Your task to perform on an android device: Search for dell xps on bestbuy, select the first entry, add it to the cart, then select checkout. Image 0: 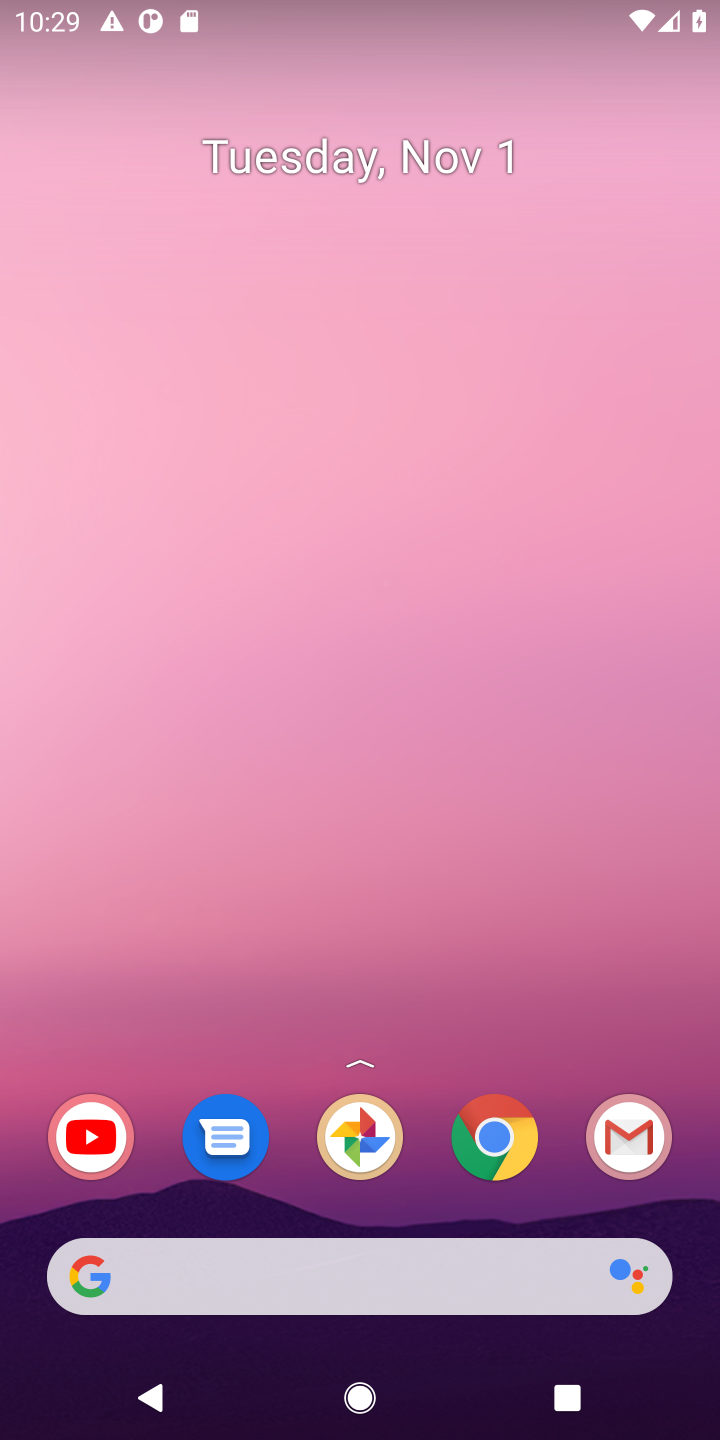
Step 0: drag from (344, 1189) to (319, 586)
Your task to perform on an android device: Search for dell xps on bestbuy, select the first entry, add it to the cart, then select checkout. Image 1: 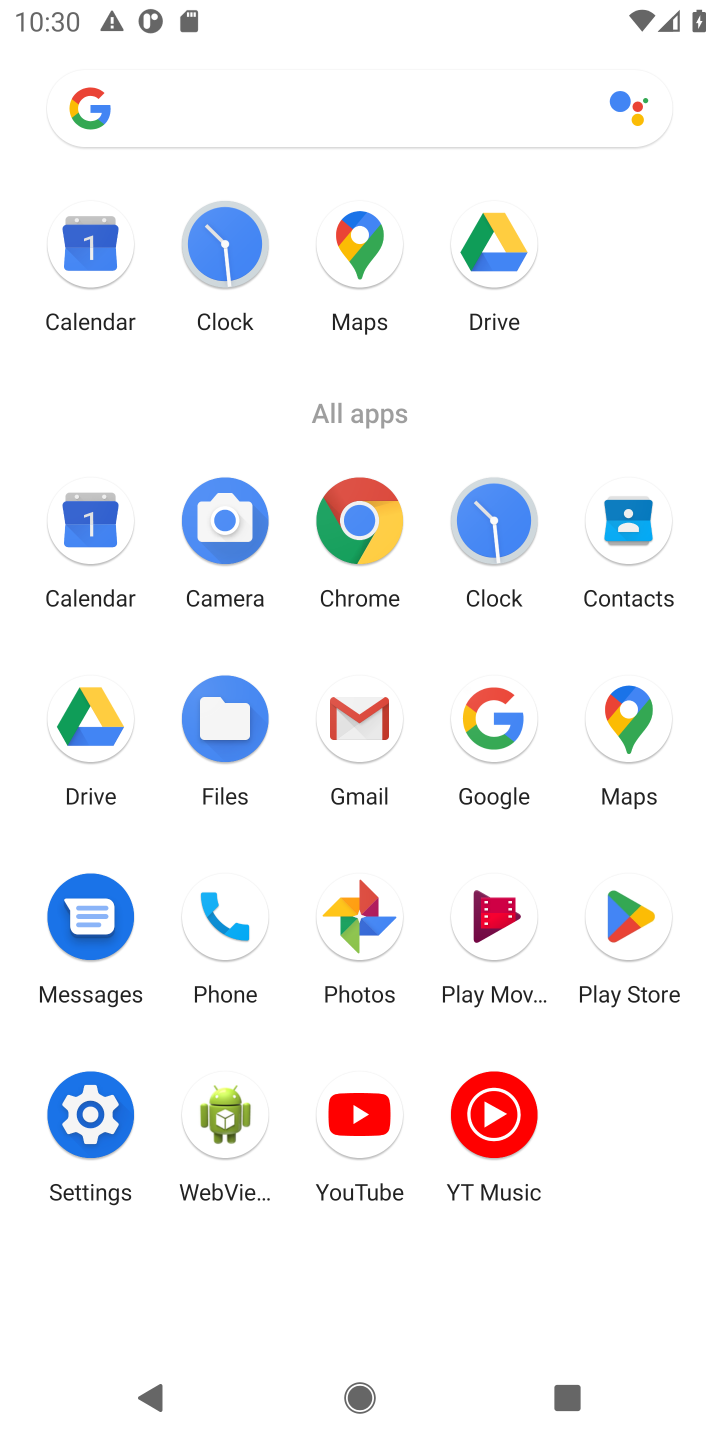
Step 1: click (493, 731)
Your task to perform on an android device: Search for dell xps on bestbuy, select the first entry, add it to the cart, then select checkout. Image 2: 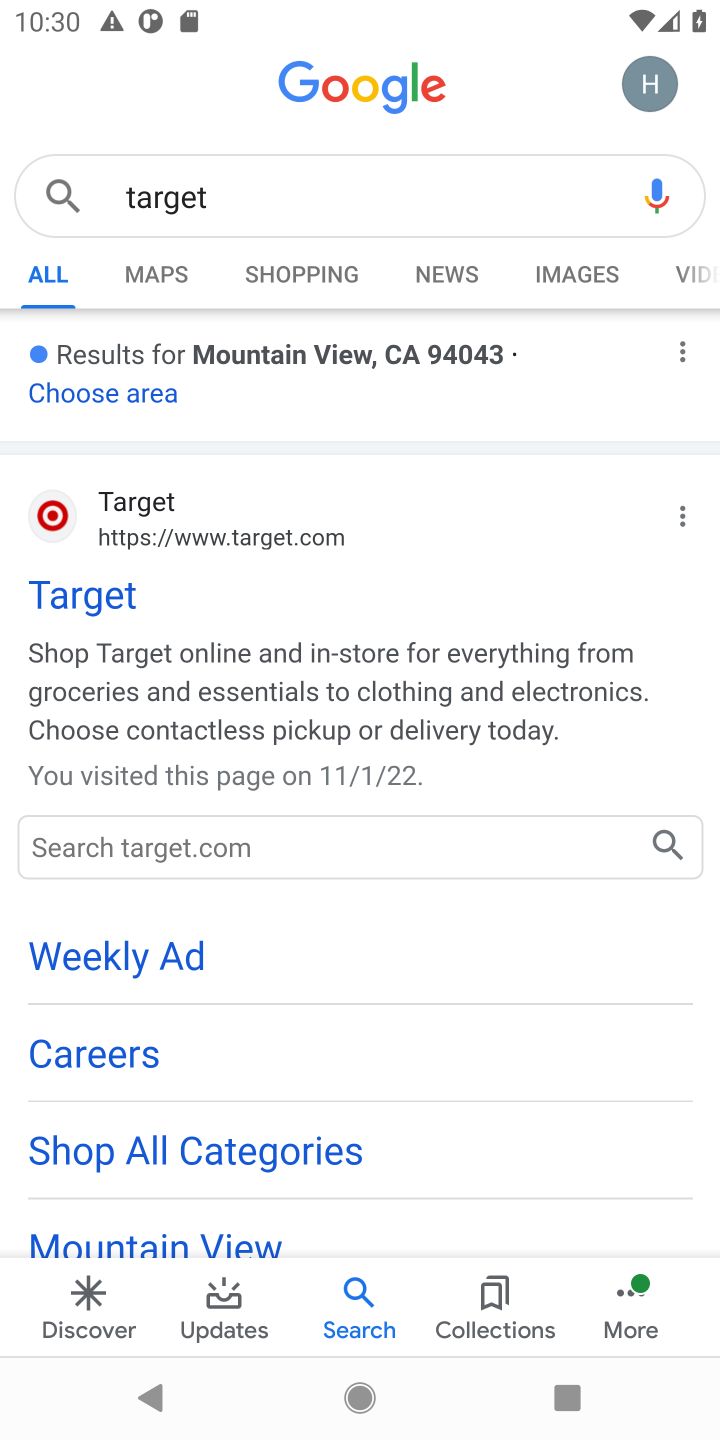
Step 2: click (460, 190)
Your task to perform on an android device: Search for dell xps on bestbuy, select the first entry, add it to the cart, then select checkout. Image 3: 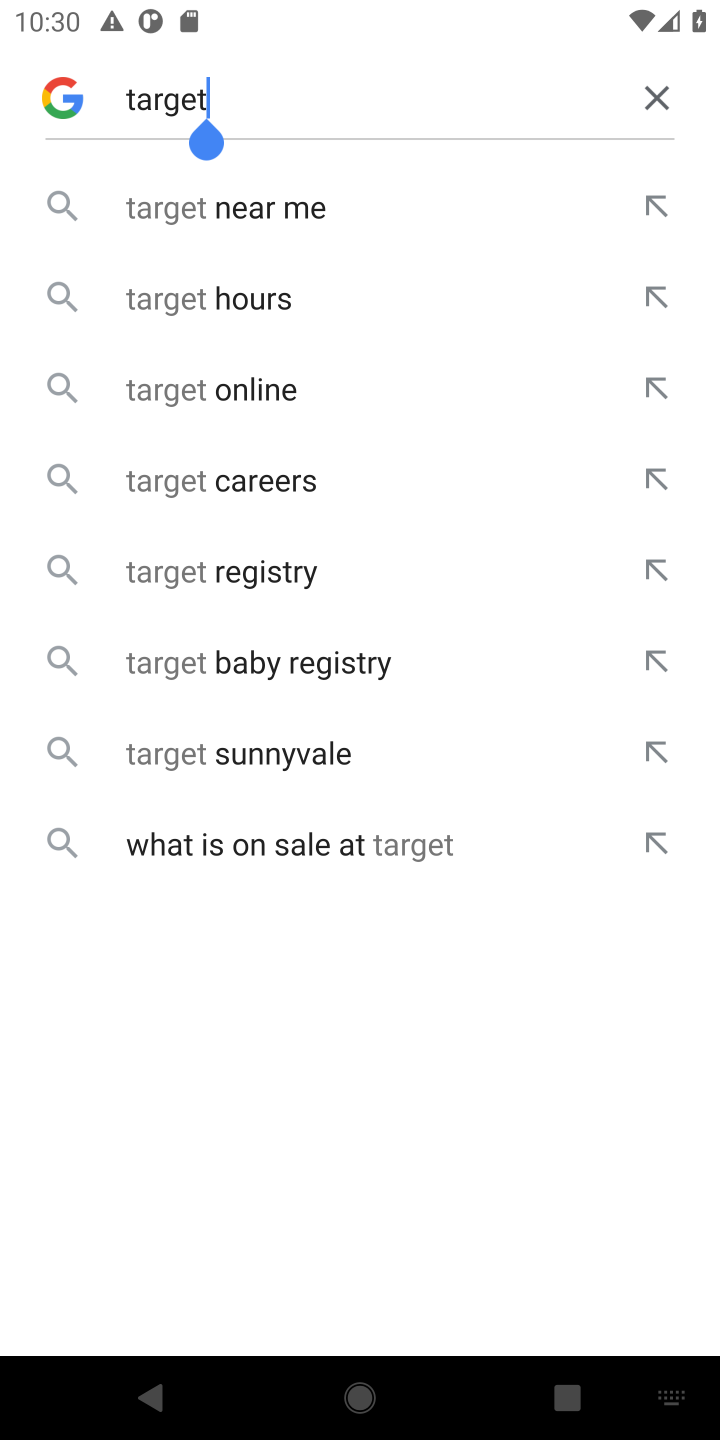
Step 3: click (653, 97)
Your task to perform on an android device: Search for dell xps on bestbuy, select the first entry, add it to the cart, then select checkout. Image 4: 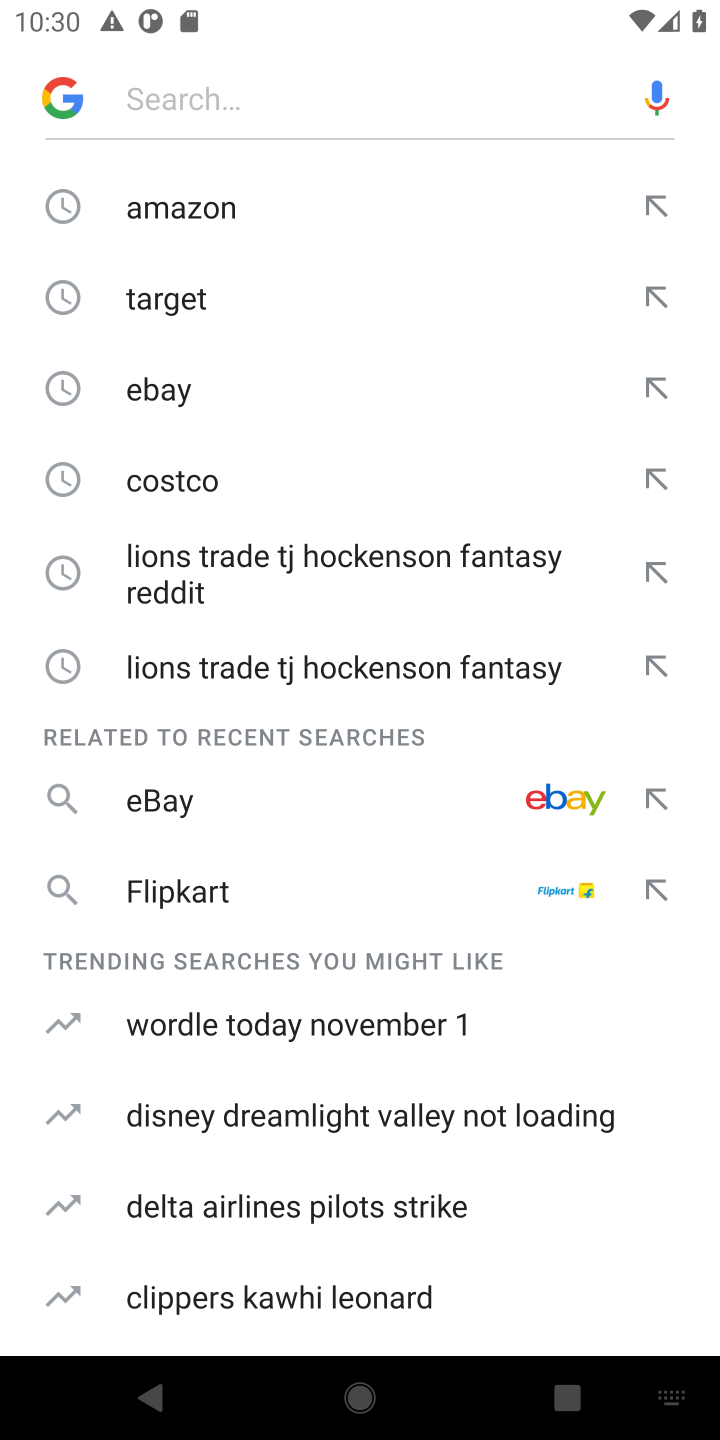
Step 4: type "bestbuy"
Your task to perform on an android device: Search for dell xps on bestbuy, select the first entry, add it to the cart, then select checkout. Image 5: 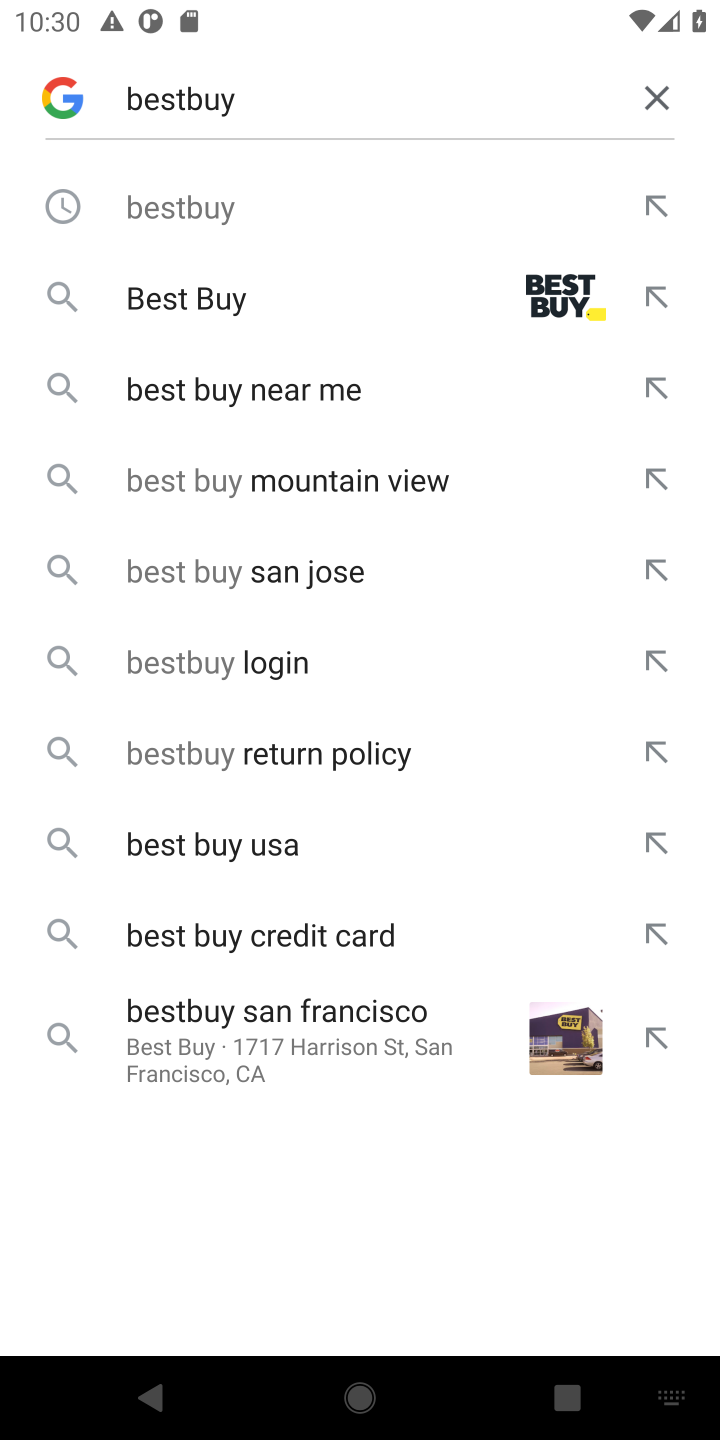
Step 5: click (305, 312)
Your task to perform on an android device: Search for dell xps on bestbuy, select the first entry, add it to the cart, then select checkout. Image 6: 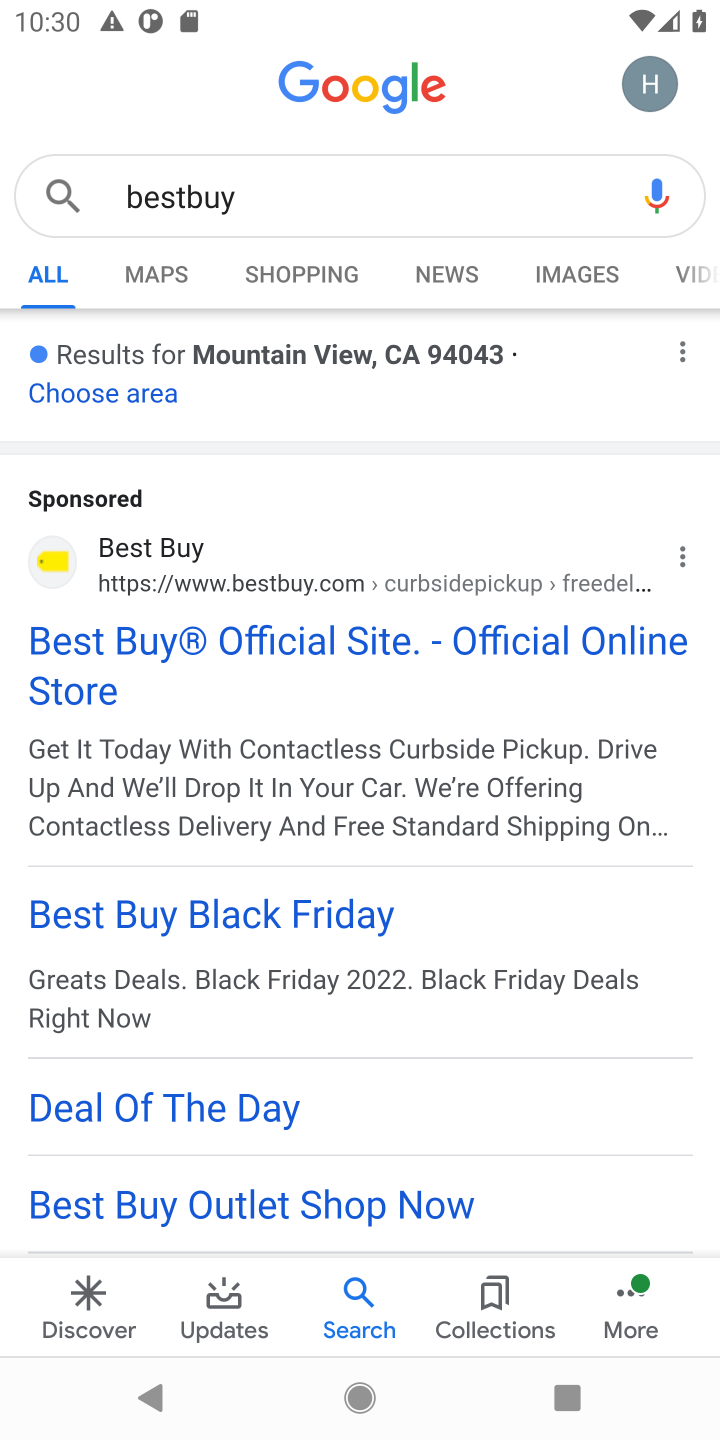
Step 6: click (143, 540)
Your task to perform on an android device: Search for dell xps on bestbuy, select the first entry, add it to the cart, then select checkout. Image 7: 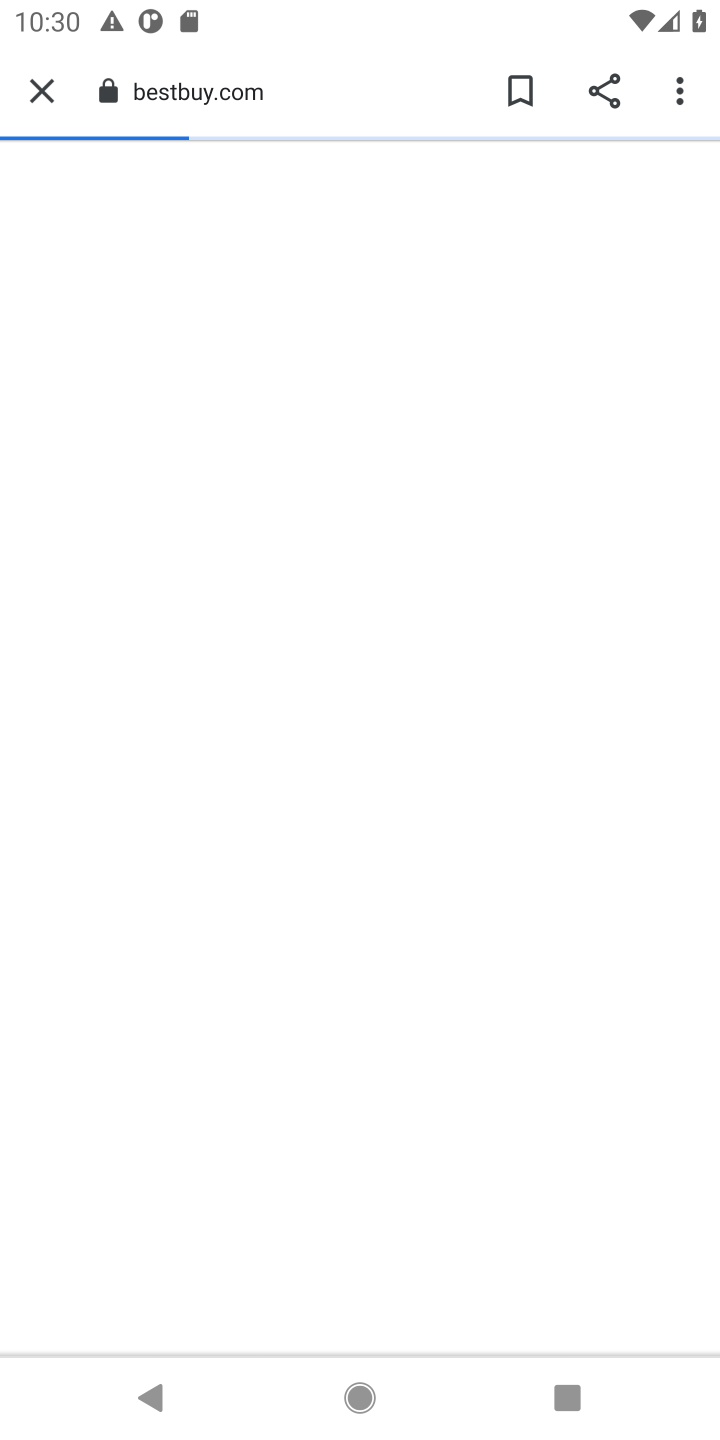
Step 7: click (186, 559)
Your task to perform on an android device: Search for dell xps on bestbuy, select the first entry, add it to the cart, then select checkout. Image 8: 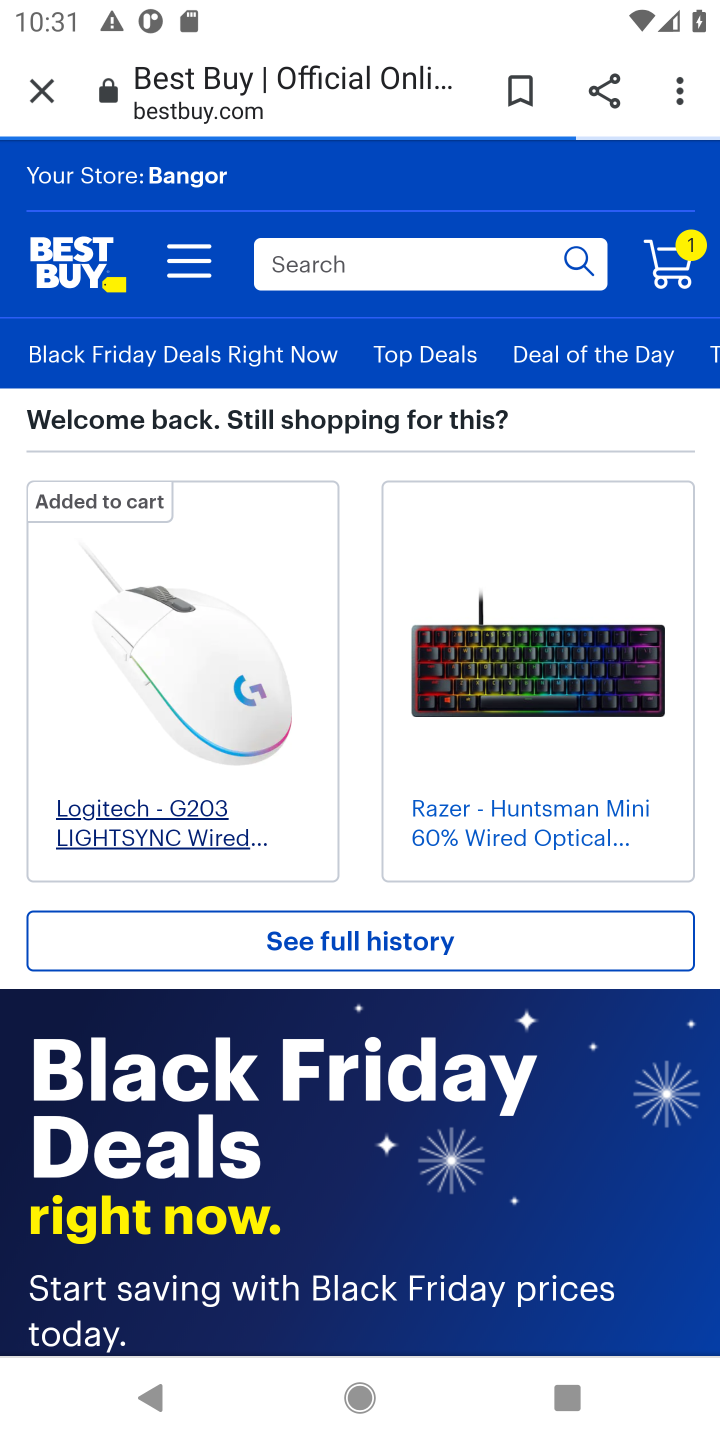
Step 8: click (385, 256)
Your task to perform on an android device: Search for dell xps on bestbuy, select the first entry, add it to the cart, then select checkout. Image 9: 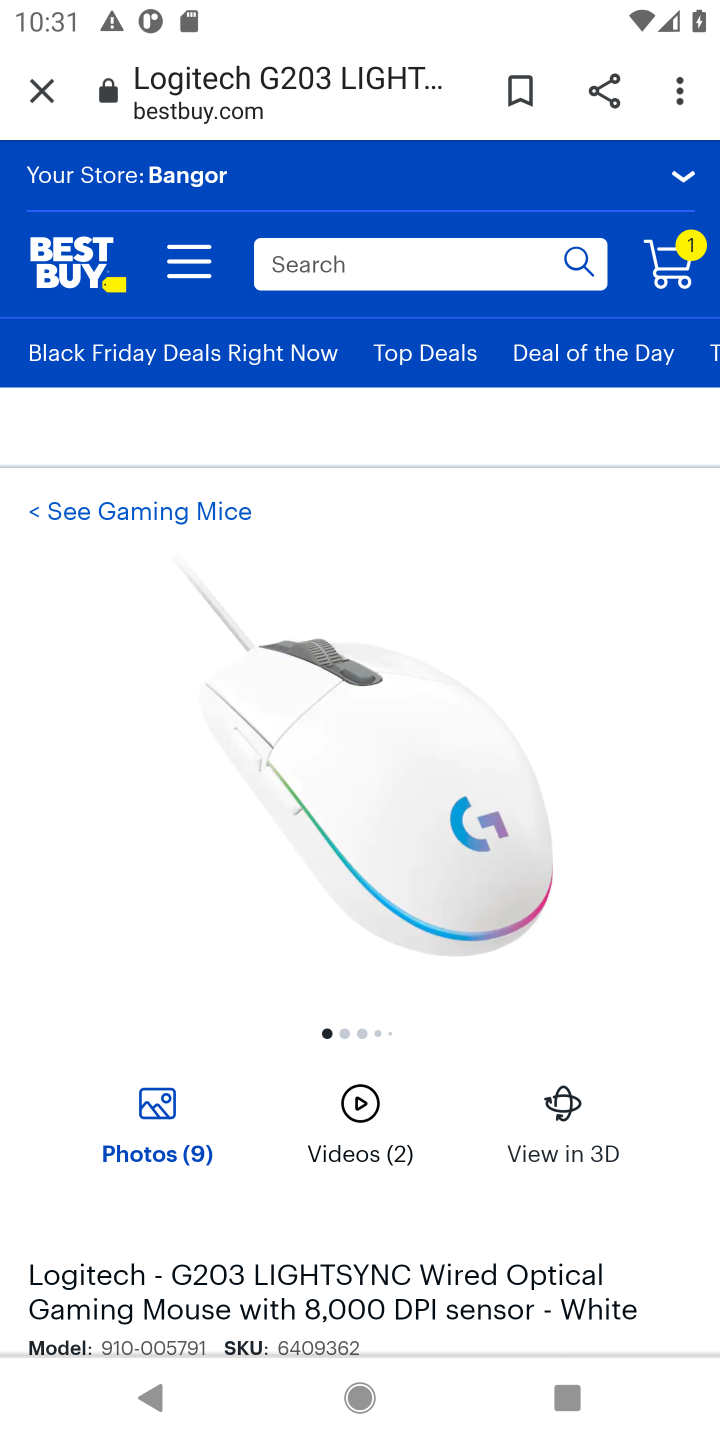
Step 9: click (323, 268)
Your task to perform on an android device: Search for dell xps on bestbuy, select the first entry, add it to the cart, then select checkout. Image 10: 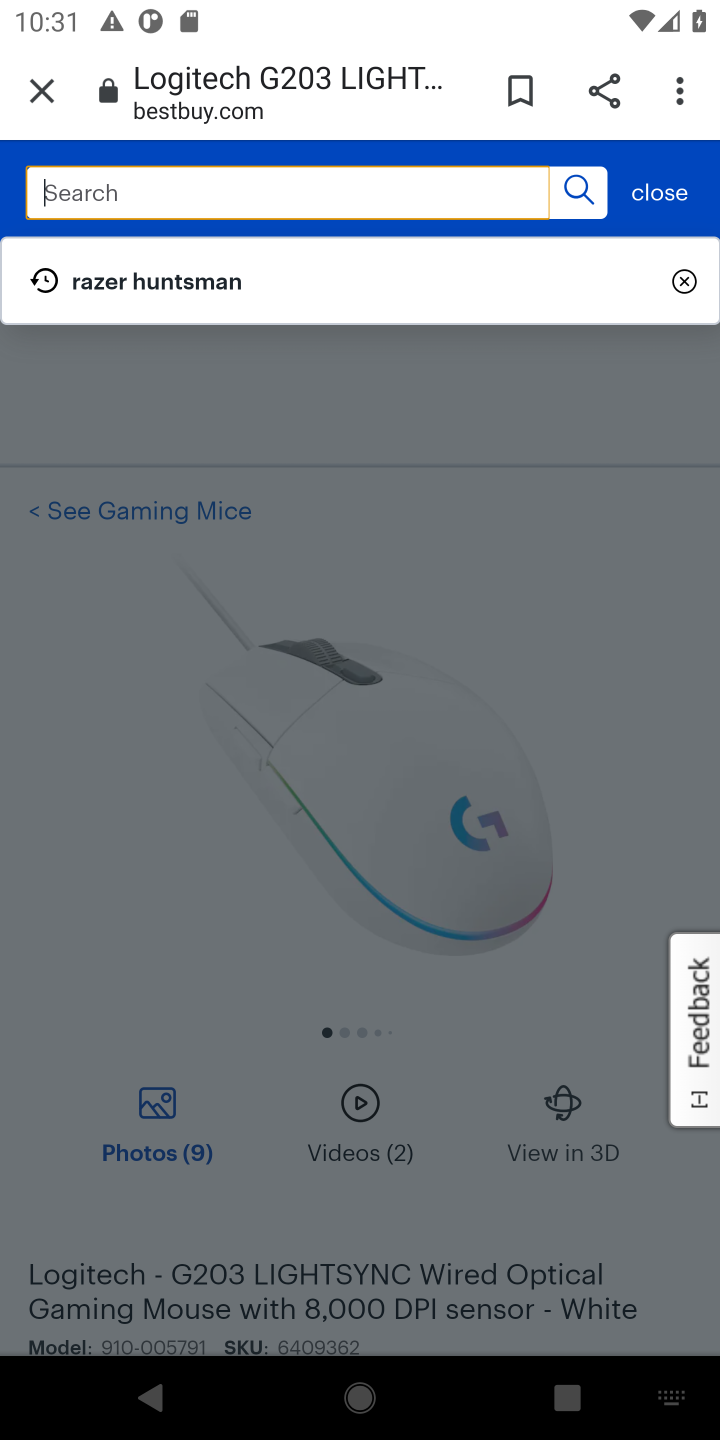
Step 10: type "dell xps"
Your task to perform on an android device: Search for dell xps on bestbuy, select the first entry, add it to the cart, then select checkout. Image 11: 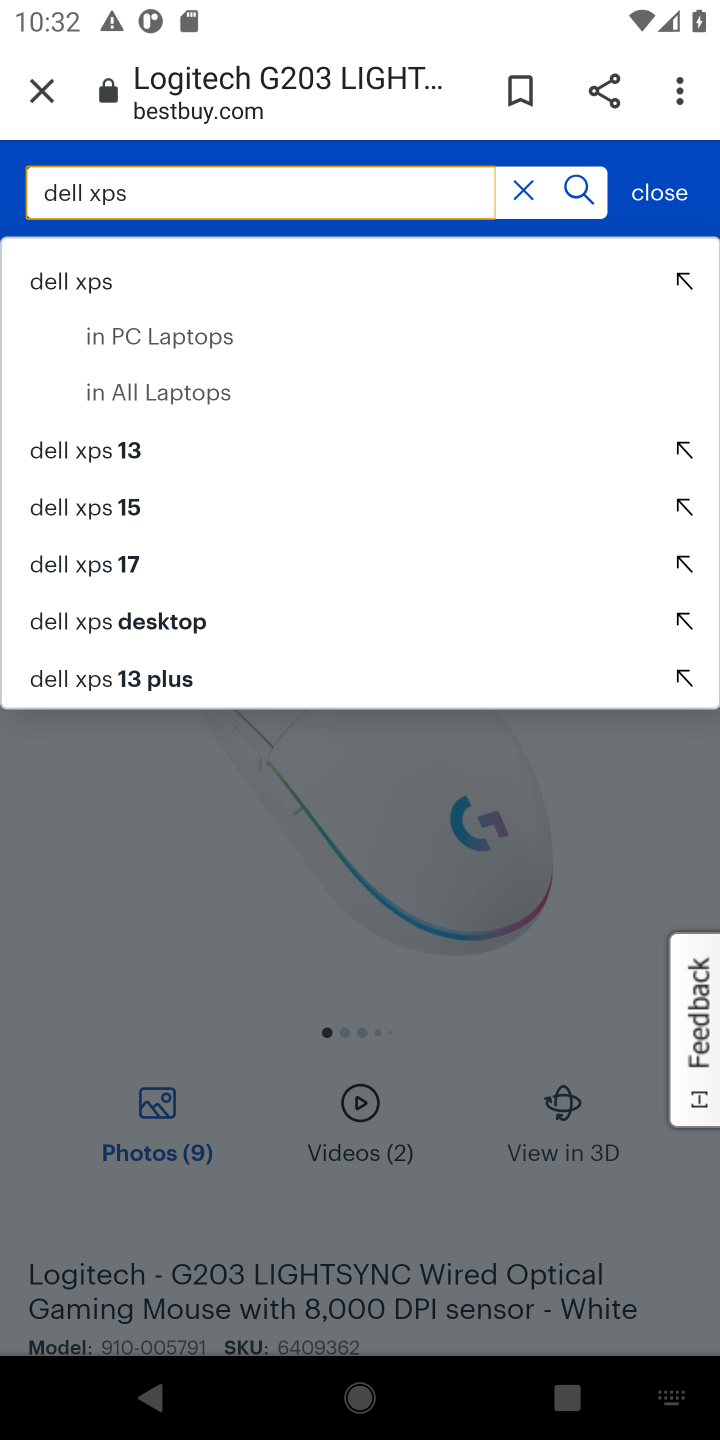
Step 11: click (183, 328)
Your task to perform on an android device: Search for dell xps on bestbuy, select the first entry, add it to the cart, then select checkout. Image 12: 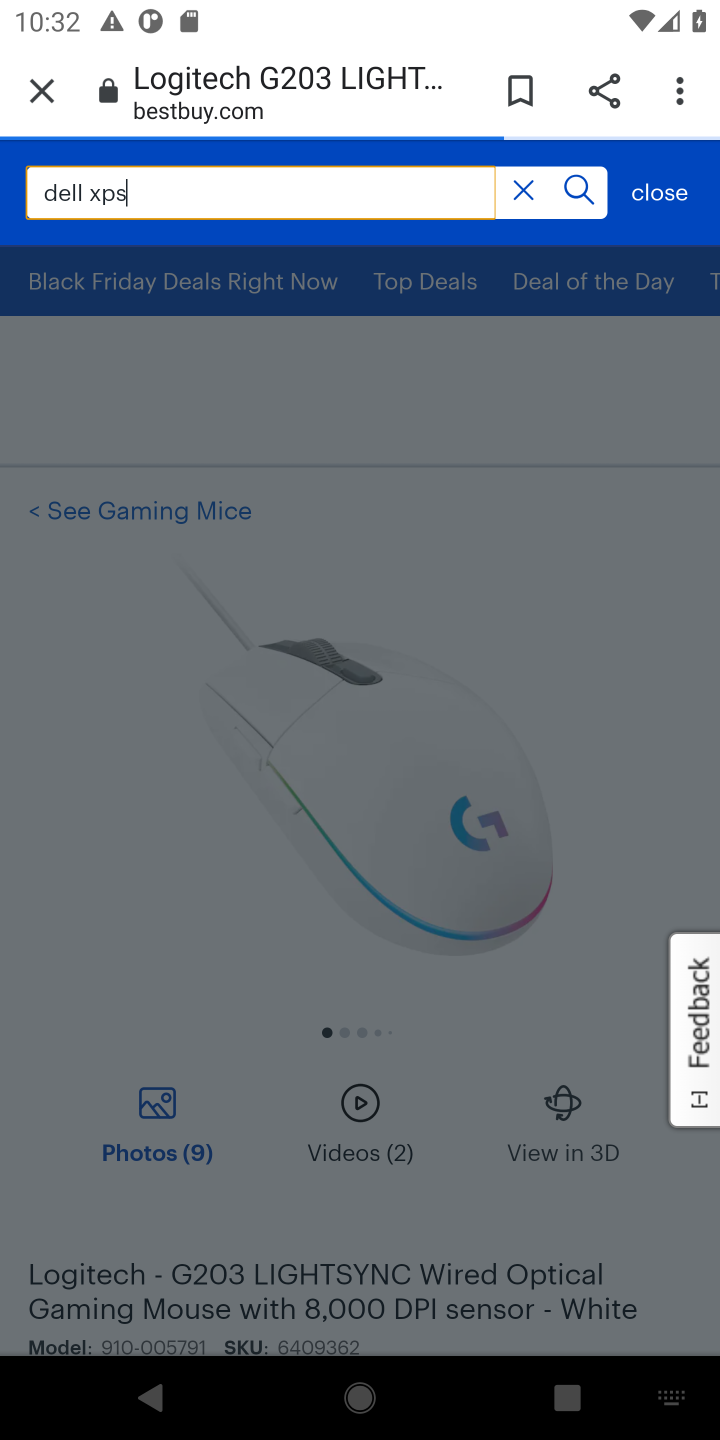
Step 12: click (641, 195)
Your task to perform on an android device: Search for dell xps on bestbuy, select the first entry, add it to the cart, then select checkout. Image 13: 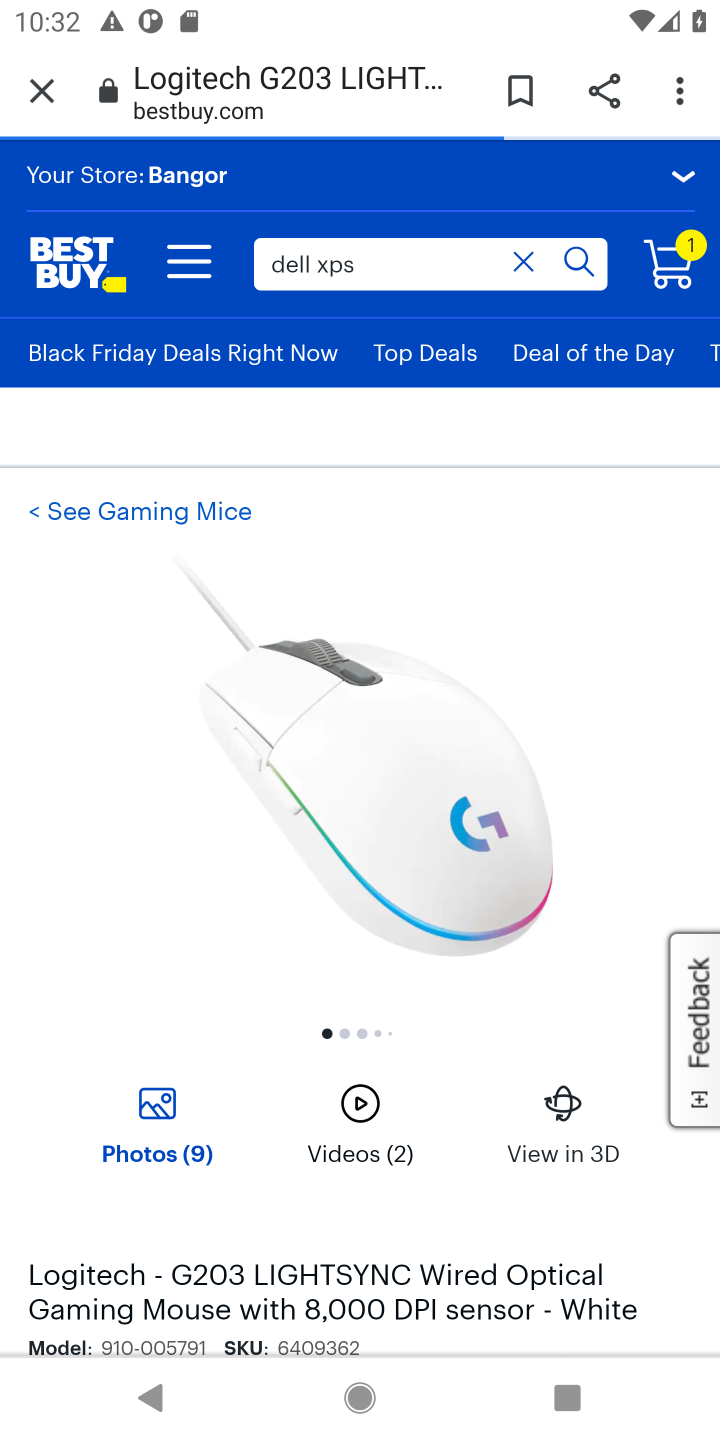
Step 13: drag from (449, 1115) to (452, 643)
Your task to perform on an android device: Search for dell xps on bestbuy, select the first entry, add it to the cart, then select checkout. Image 14: 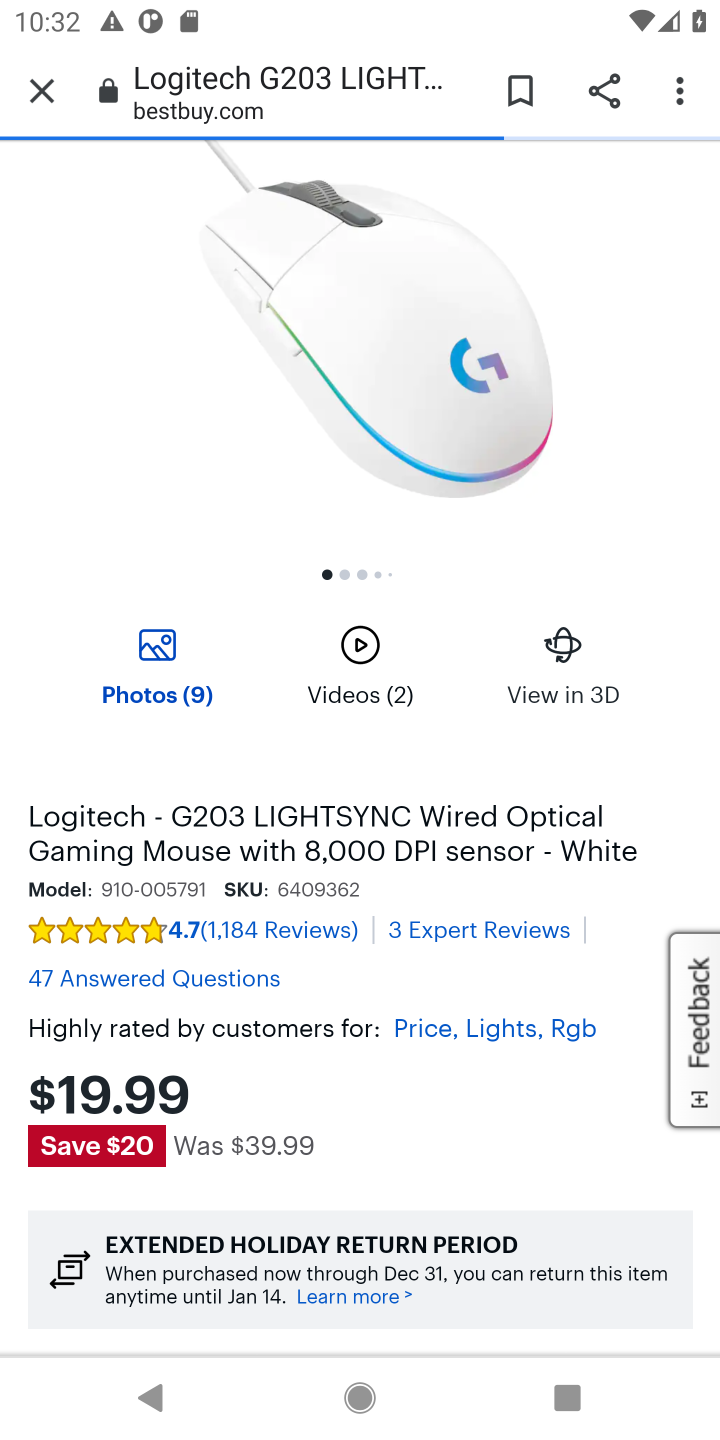
Step 14: drag from (489, 598) to (524, 1204)
Your task to perform on an android device: Search for dell xps on bestbuy, select the first entry, add it to the cart, then select checkout. Image 15: 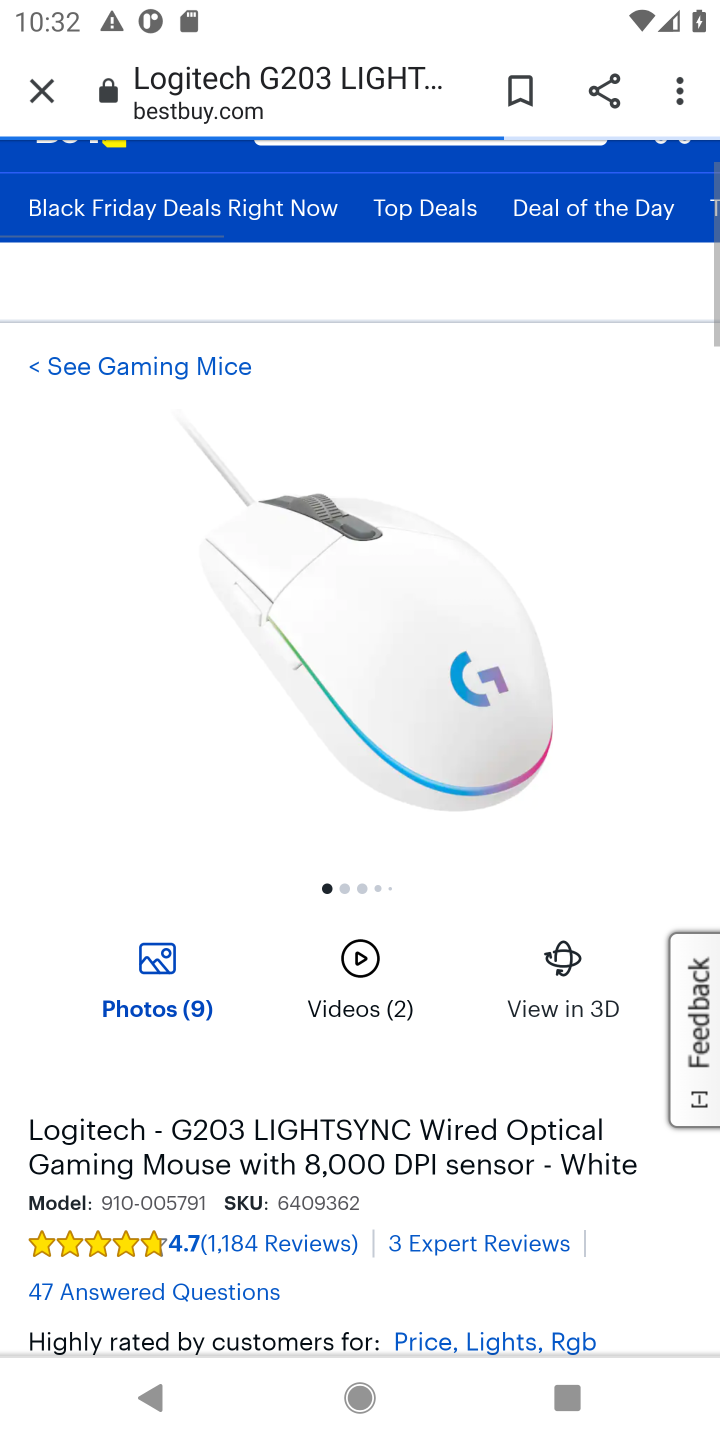
Step 15: drag from (509, 967) to (509, 1328)
Your task to perform on an android device: Search for dell xps on bestbuy, select the first entry, add it to the cart, then select checkout. Image 16: 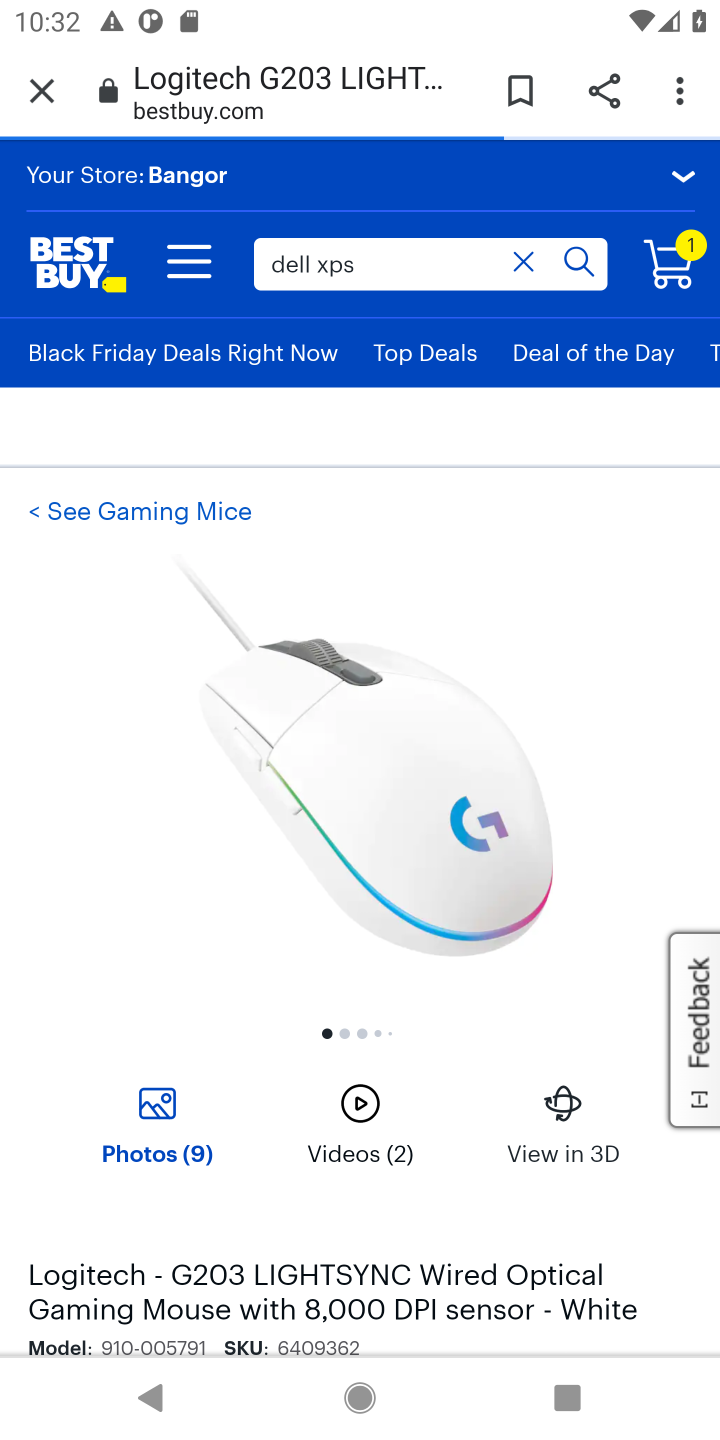
Step 16: click (470, 244)
Your task to perform on an android device: Search for dell xps on bestbuy, select the first entry, add it to the cart, then select checkout. Image 17: 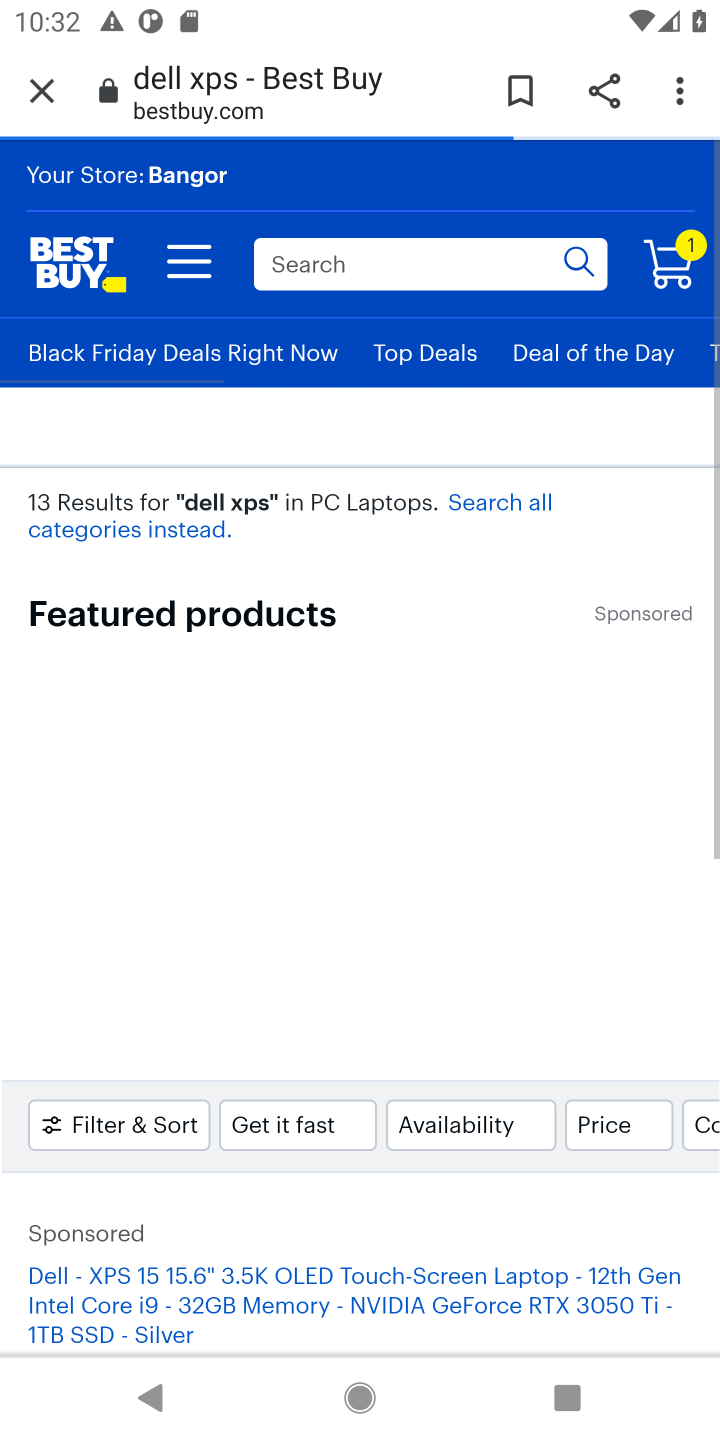
Step 17: click (527, 185)
Your task to perform on an android device: Search for dell xps on bestbuy, select the first entry, add it to the cart, then select checkout. Image 18: 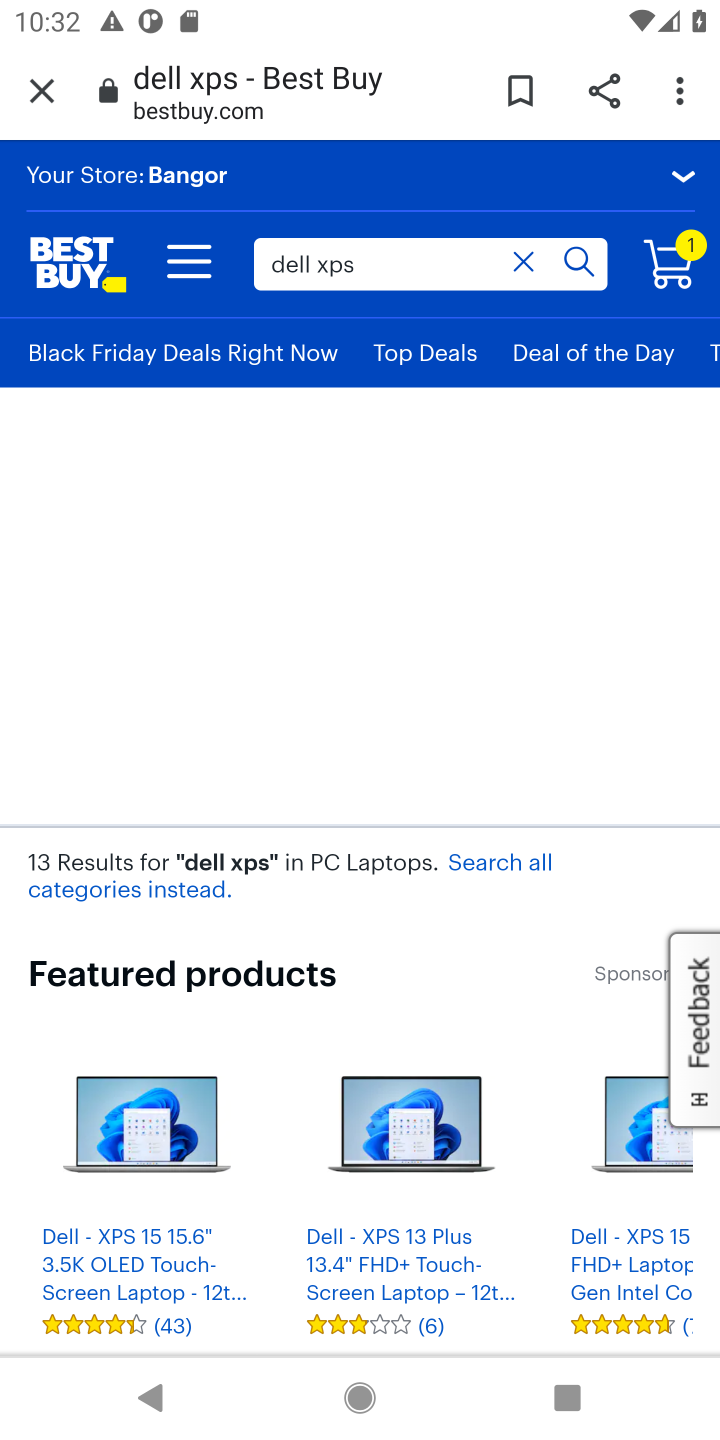
Step 18: click (162, 1251)
Your task to perform on an android device: Search for dell xps on bestbuy, select the first entry, add it to the cart, then select checkout. Image 19: 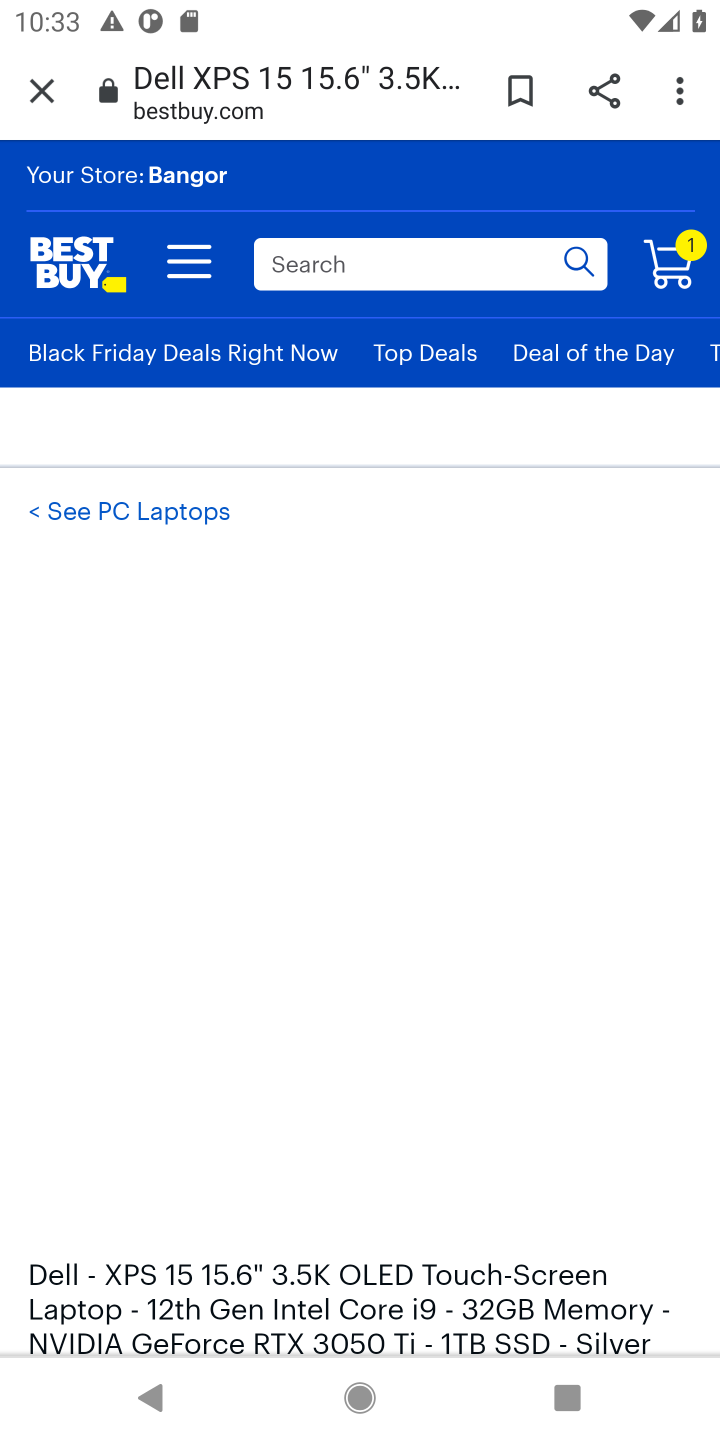
Step 19: drag from (354, 997) to (354, 444)
Your task to perform on an android device: Search for dell xps on bestbuy, select the first entry, add it to the cart, then select checkout. Image 20: 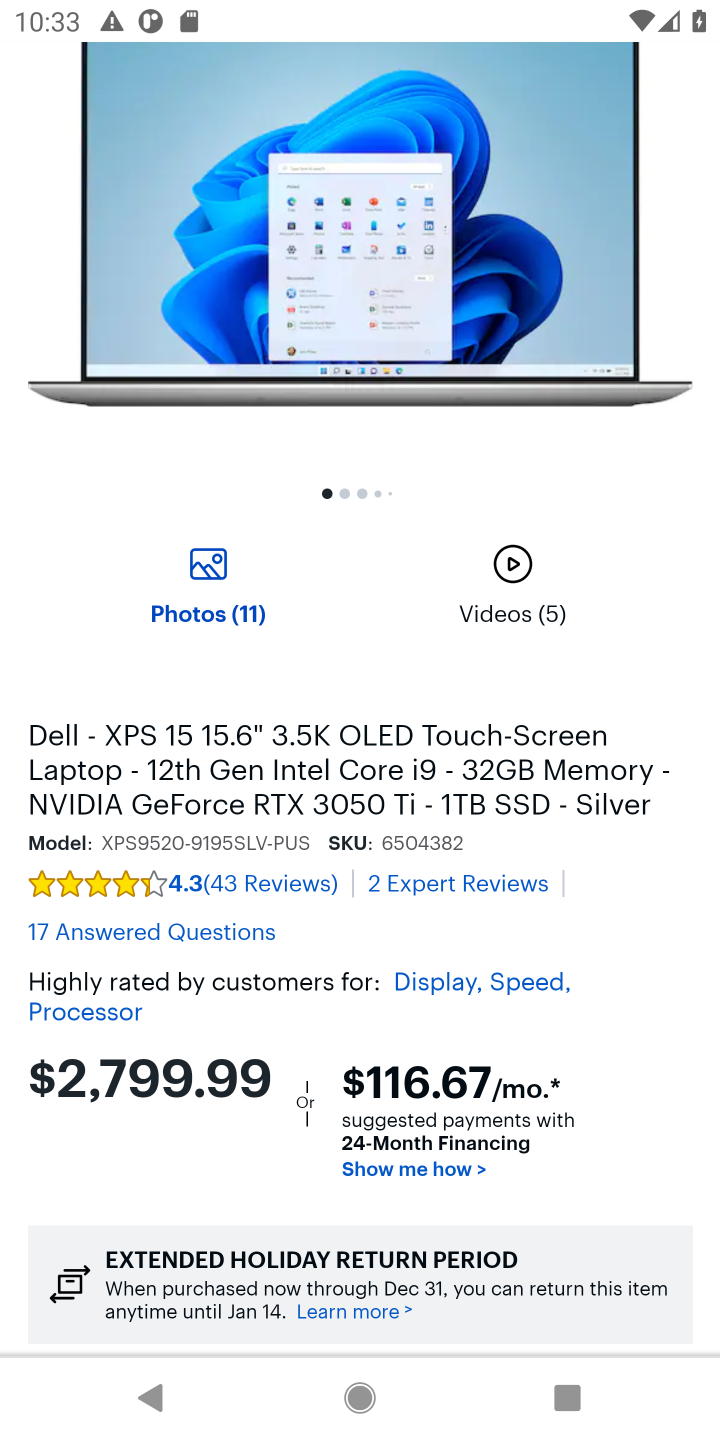
Step 20: drag from (326, 1062) to (390, 607)
Your task to perform on an android device: Search for dell xps on bestbuy, select the first entry, add it to the cart, then select checkout. Image 21: 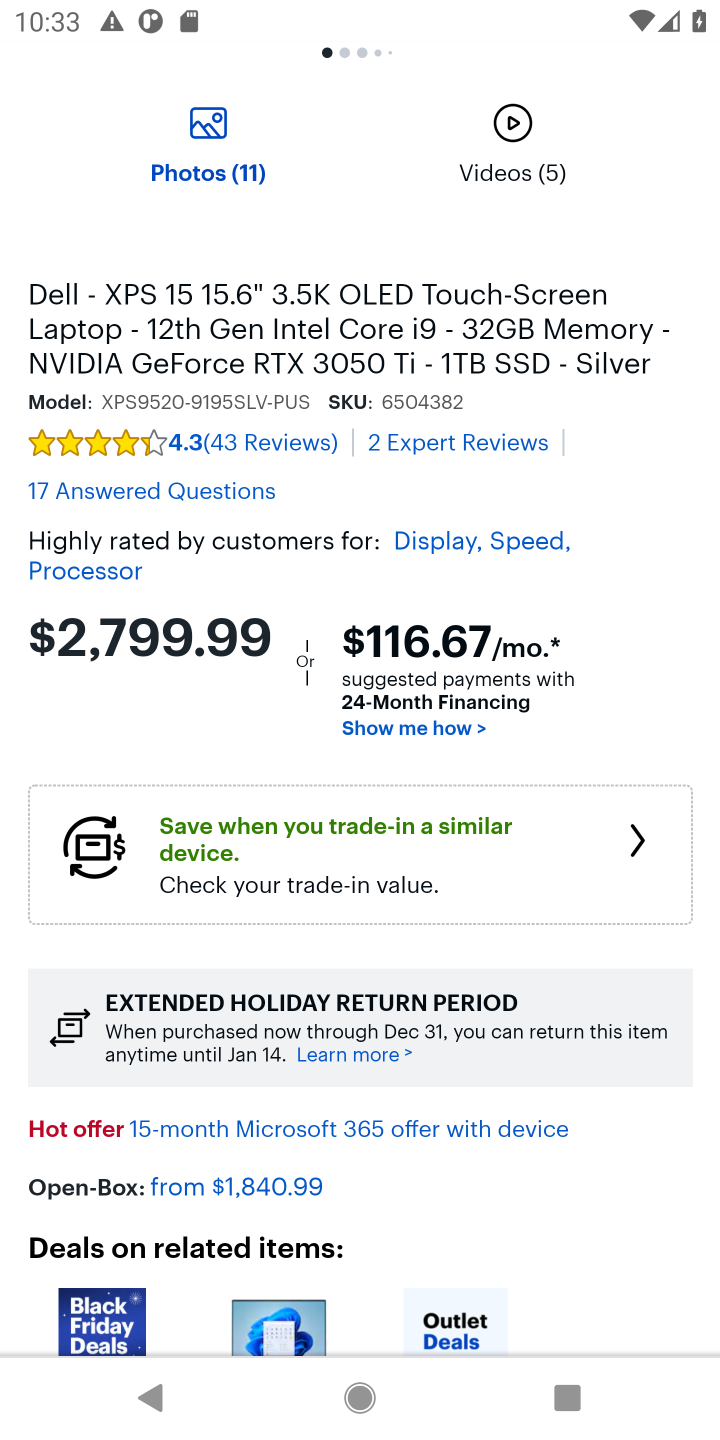
Step 21: click (533, 798)
Your task to perform on an android device: Search for dell xps on bestbuy, select the first entry, add it to the cart, then select checkout. Image 22: 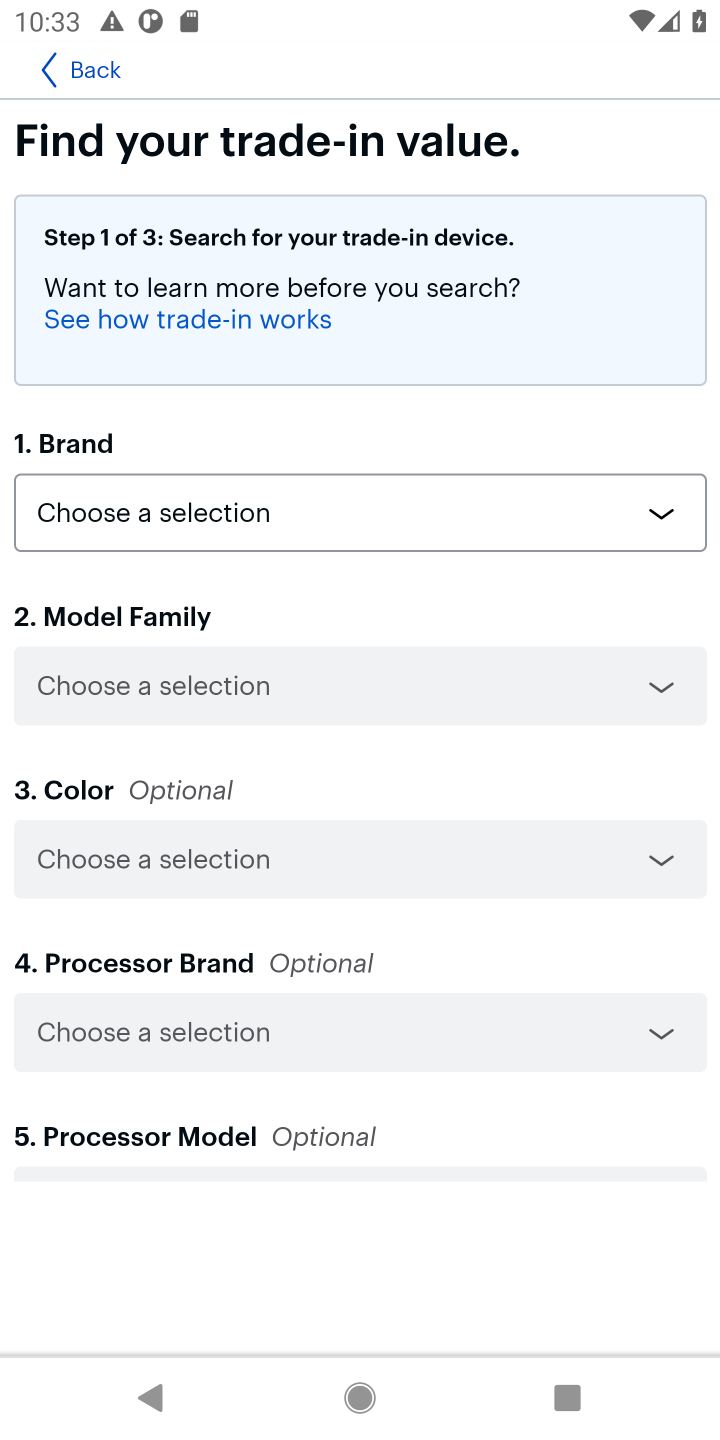
Step 22: press back button
Your task to perform on an android device: Search for dell xps on bestbuy, select the first entry, add it to the cart, then select checkout. Image 23: 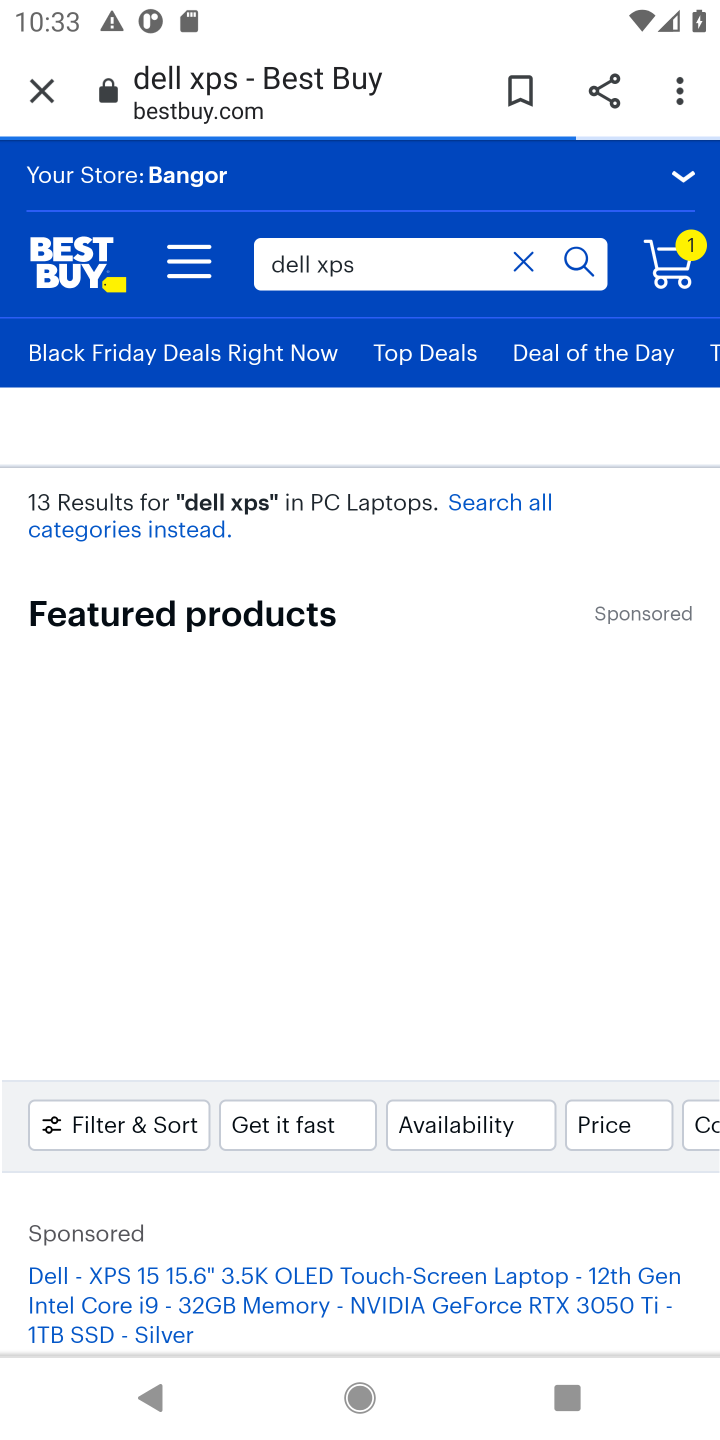
Step 23: drag from (446, 1118) to (446, 639)
Your task to perform on an android device: Search for dell xps on bestbuy, select the first entry, add it to the cart, then select checkout. Image 24: 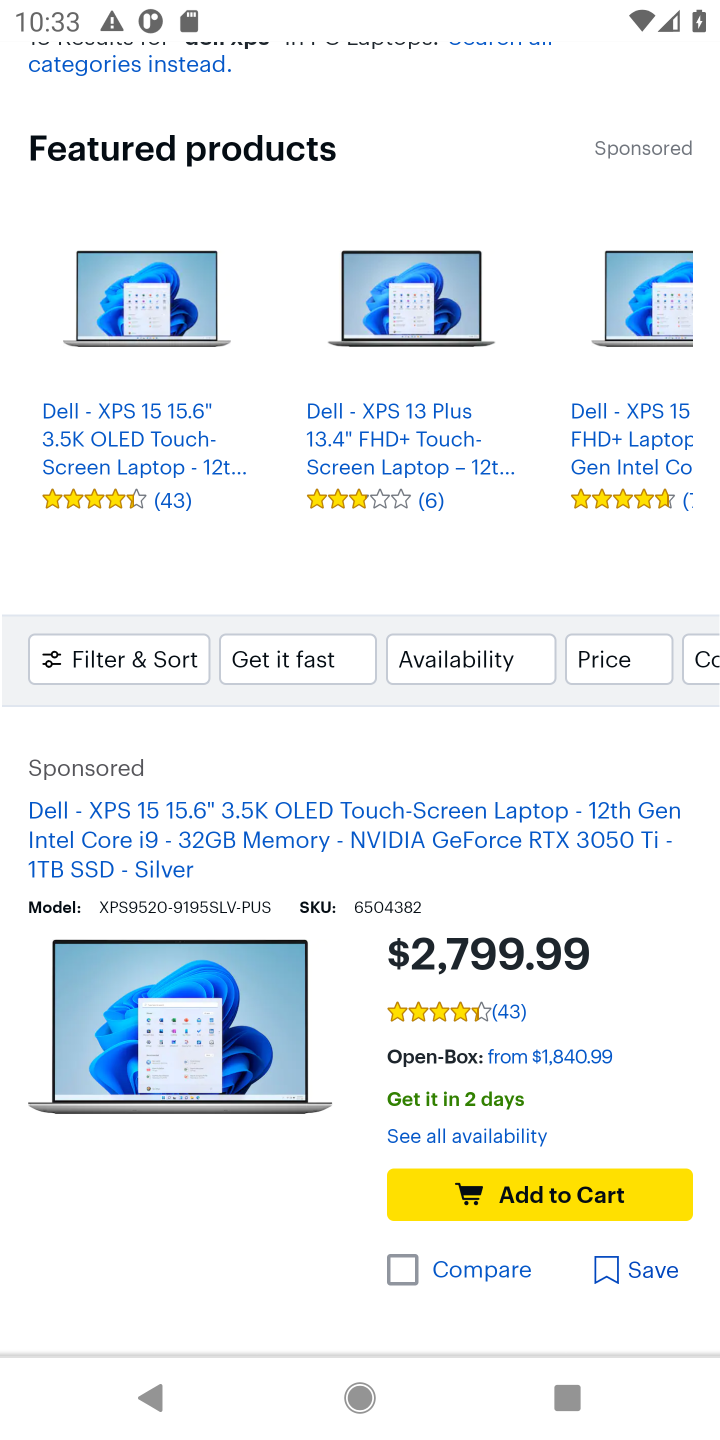
Step 24: click (545, 1191)
Your task to perform on an android device: Search for dell xps on bestbuy, select the first entry, add it to the cart, then select checkout. Image 25: 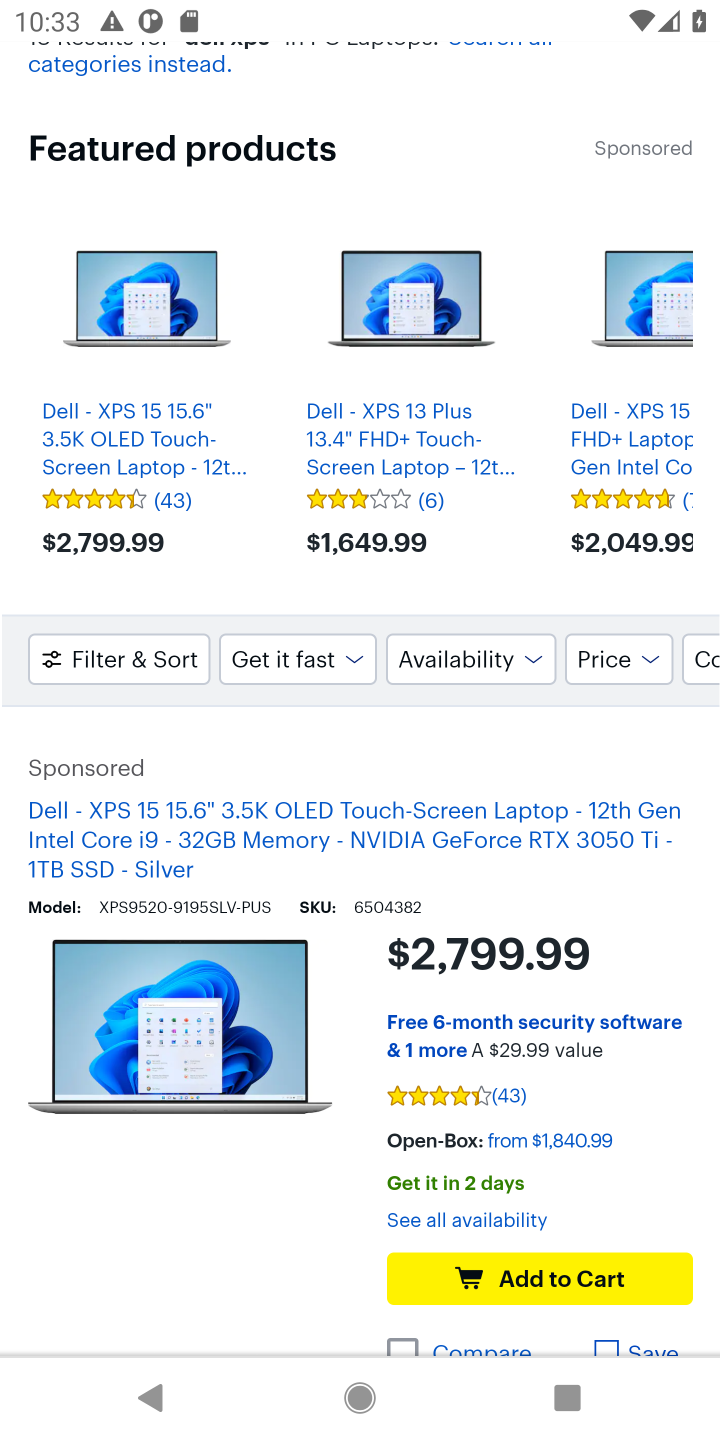
Step 25: click (523, 1268)
Your task to perform on an android device: Search for dell xps on bestbuy, select the first entry, add it to the cart, then select checkout. Image 26: 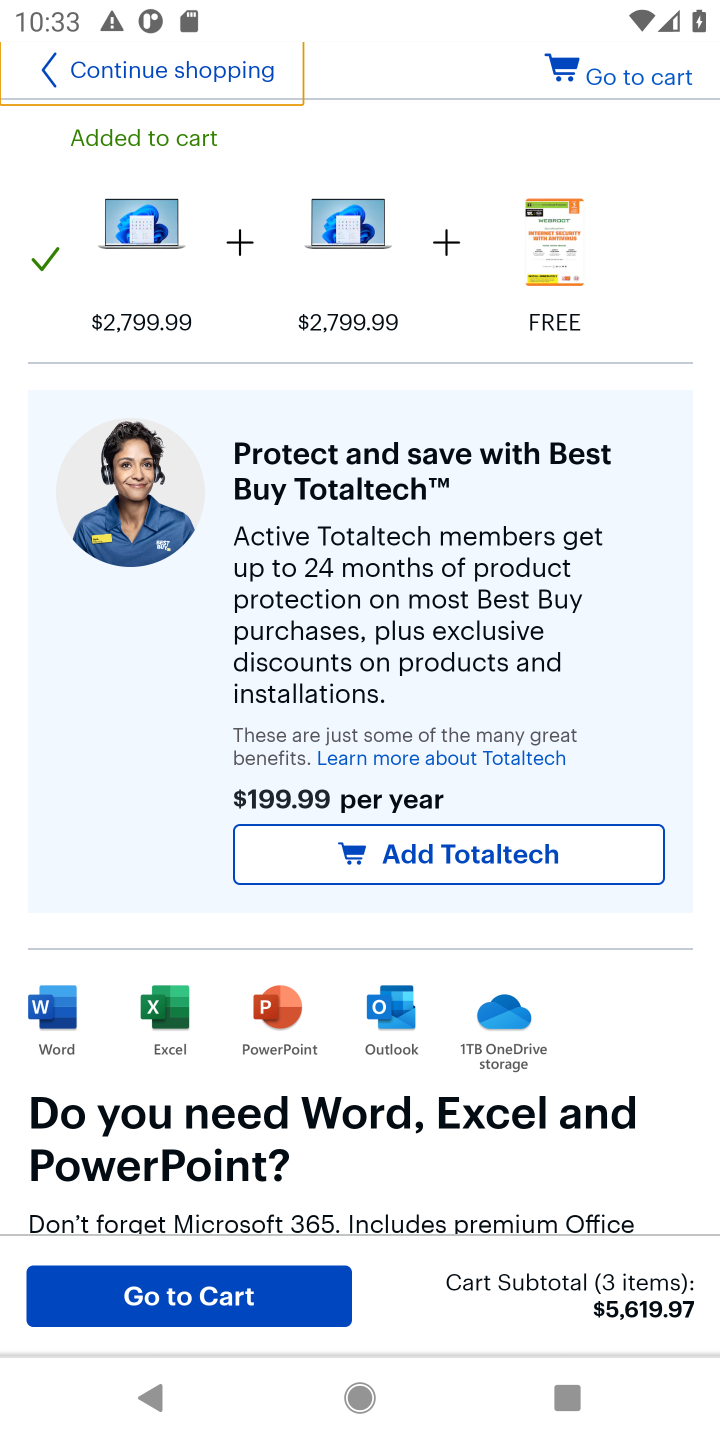
Step 26: task complete